Your task to perform on an android device: Open ESPN.com Image 0: 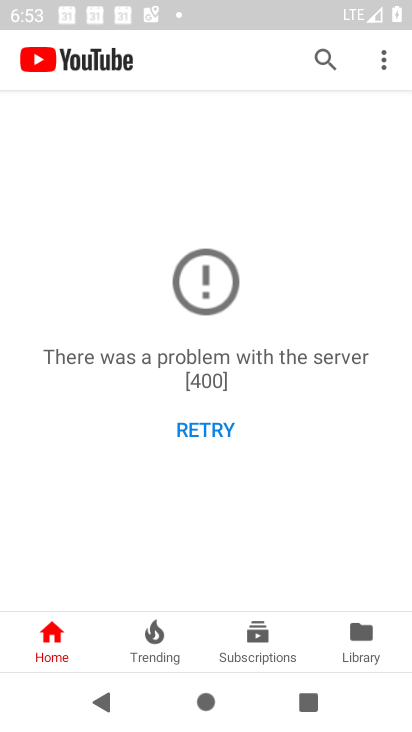
Step 0: press home button
Your task to perform on an android device: Open ESPN.com Image 1: 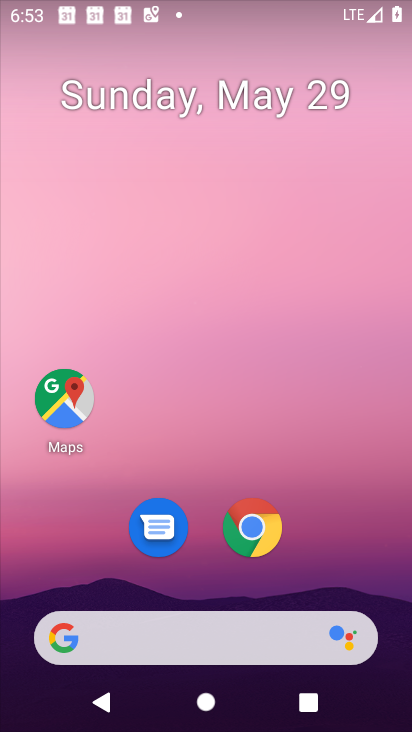
Step 1: drag from (361, 540) to (287, 94)
Your task to perform on an android device: Open ESPN.com Image 2: 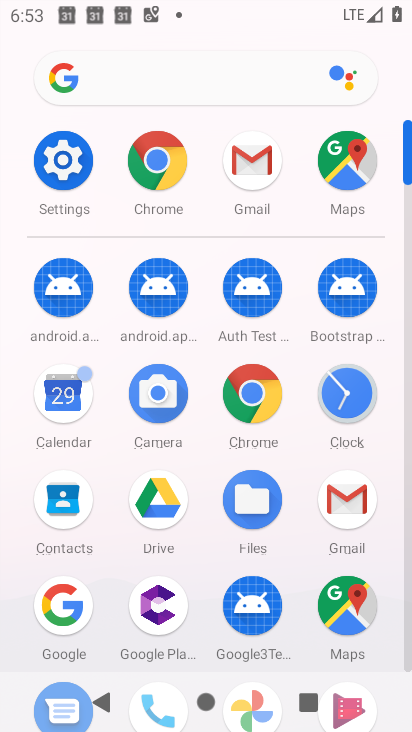
Step 2: click (73, 585)
Your task to perform on an android device: Open ESPN.com Image 3: 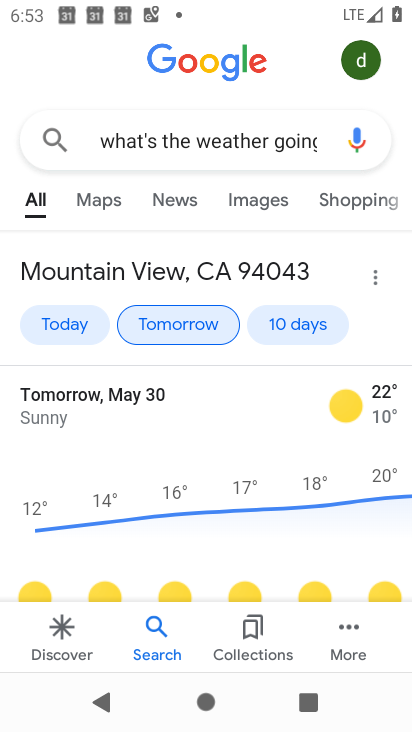
Step 3: press back button
Your task to perform on an android device: Open ESPN.com Image 4: 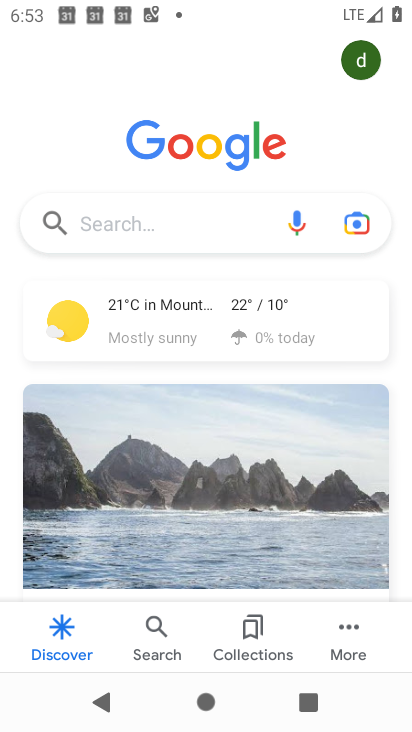
Step 4: click (122, 220)
Your task to perform on an android device: Open ESPN.com Image 5: 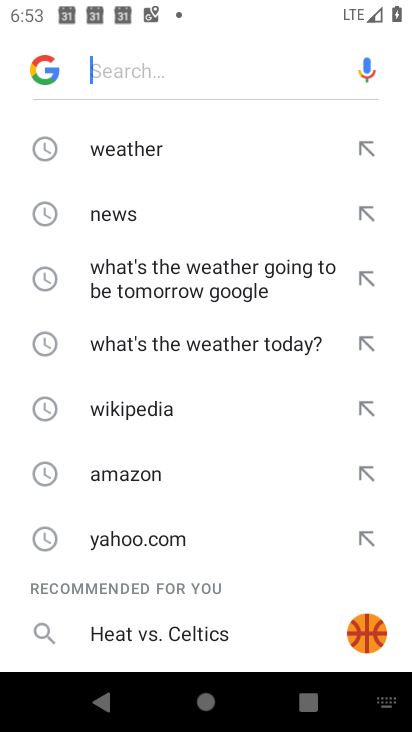
Step 5: type "espn.com"
Your task to perform on an android device: Open ESPN.com Image 6: 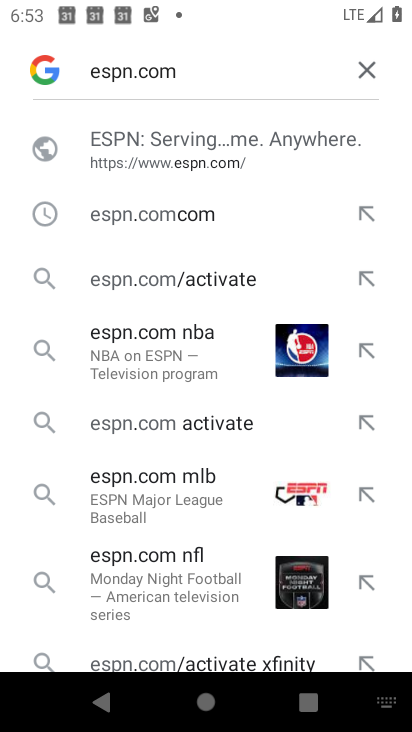
Step 6: click (276, 179)
Your task to perform on an android device: Open ESPN.com Image 7: 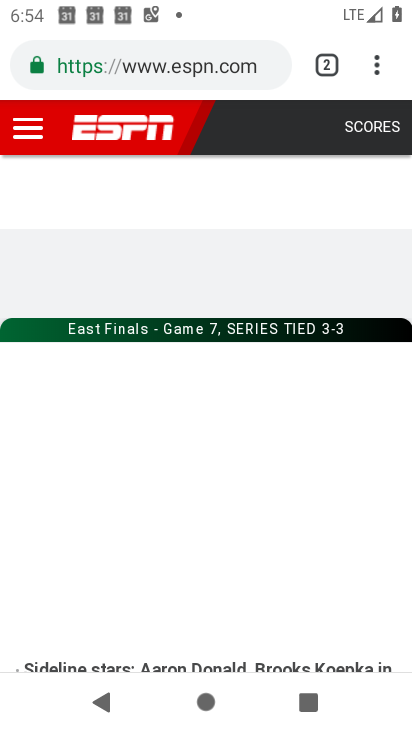
Step 7: task complete